Your task to perform on an android device: delete browsing data in the chrome app Image 0: 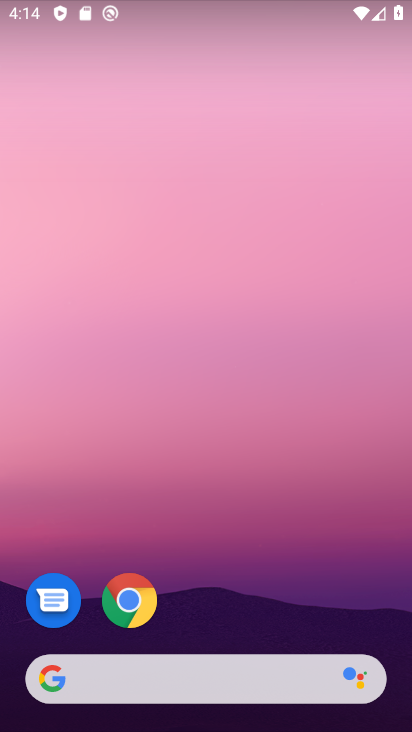
Step 0: click (131, 594)
Your task to perform on an android device: delete browsing data in the chrome app Image 1: 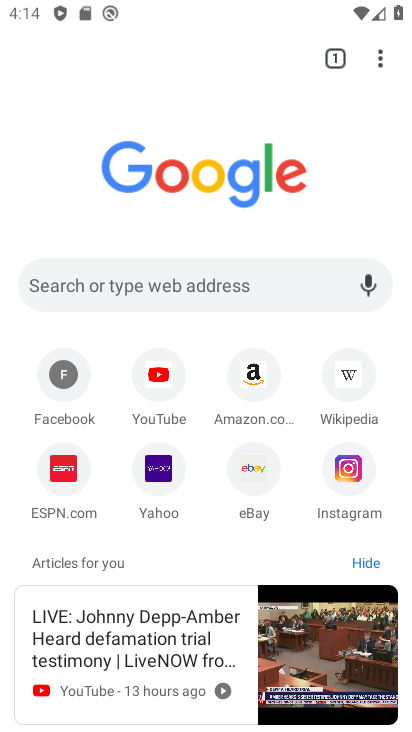
Step 1: click (382, 65)
Your task to perform on an android device: delete browsing data in the chrome app Image 2: 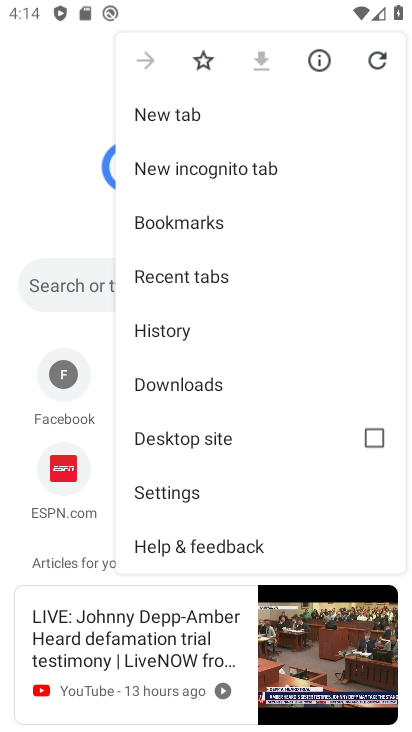
Step 2: click (190, 326)
Your task to perform on an android device: delete browsing data in the chrome app Image 3: 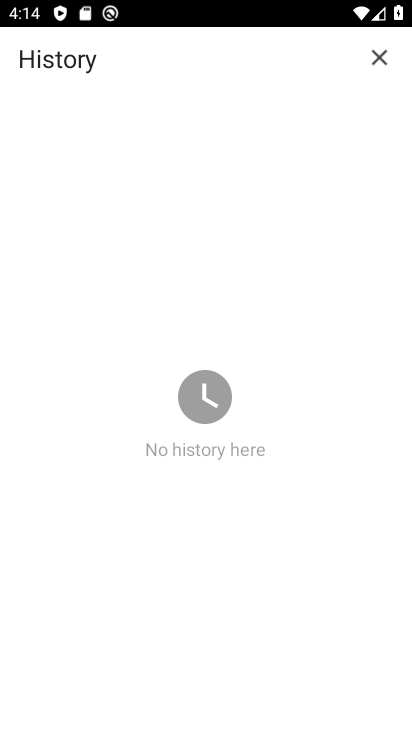
Step 3: task complete